Your task to perform on an android device: Empty the shopping cart on bestbuy. Add usb-a to usb-b to the cart on bestbuy Image 0: 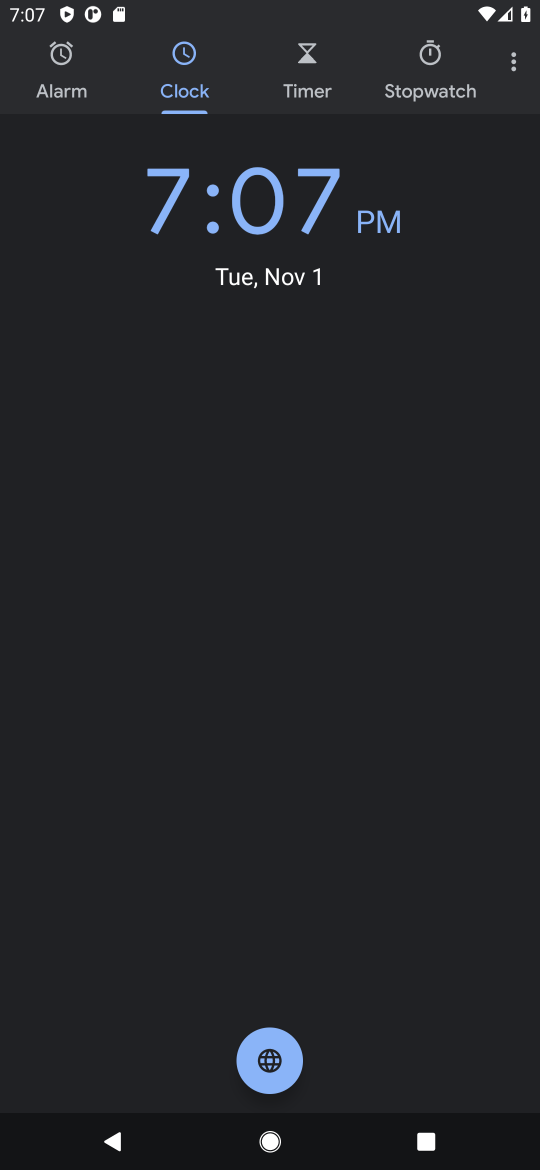
Step 0: press home button
Your task to perform on an android device: Empty the shopping cart on bestbuy. Add usb-a to usb-b to the cart on bestbuy Image 1: 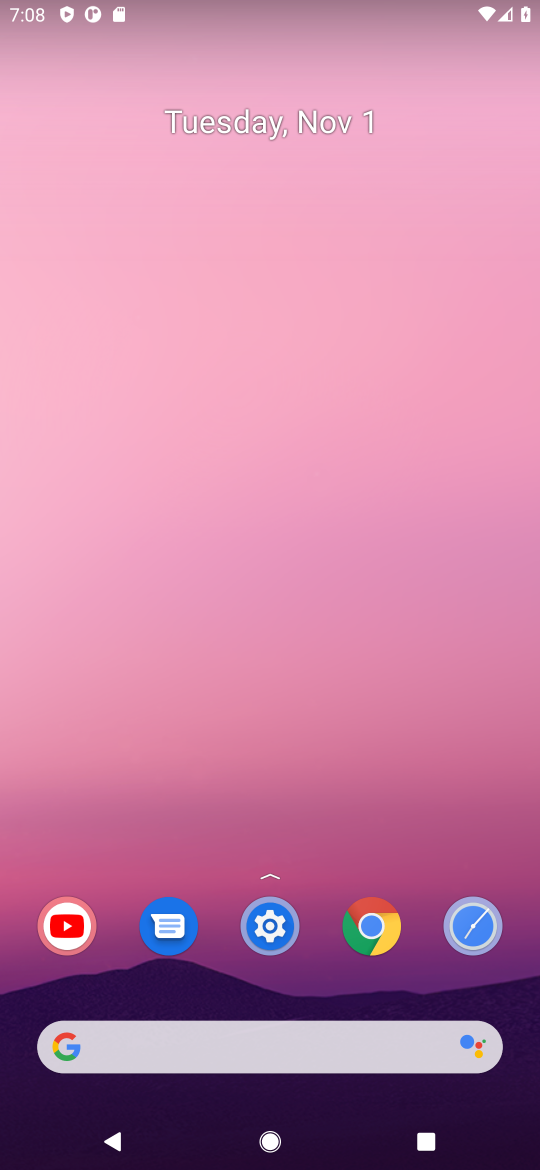
Step 1: click (372, 934)
Your task to perform on an android device: Empty the shopping cart on bestbuy. Add usb-a to usb-b to the cart on bestbuy Image 2: 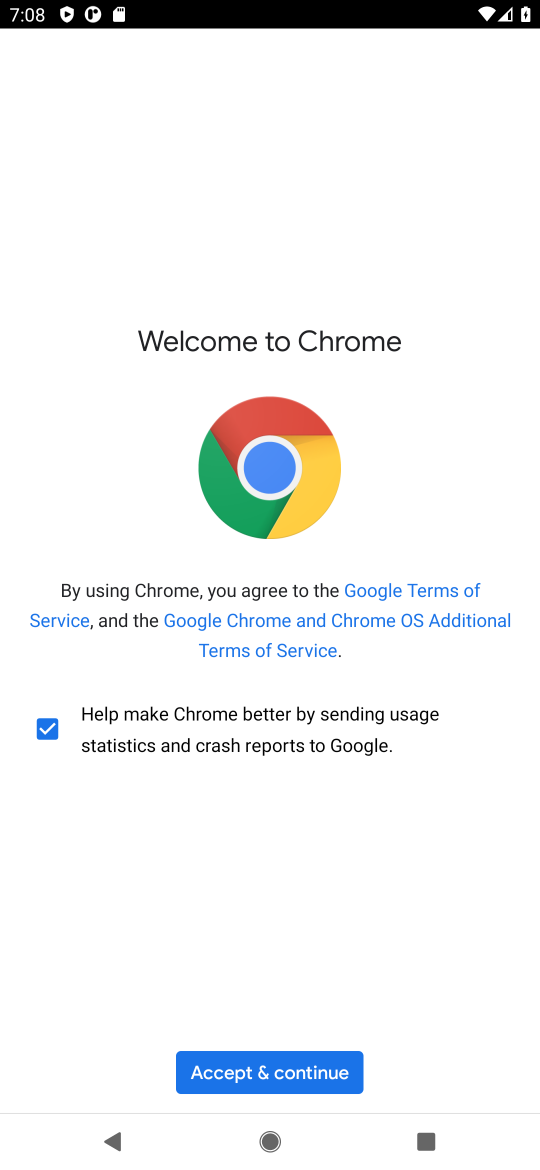
Step 2: click (262, 1089)
Your task to perform on an android device: Empty the shopping cart on bestbuy. Add usb-a to usb-b to the cart on bestbuy Image 3: 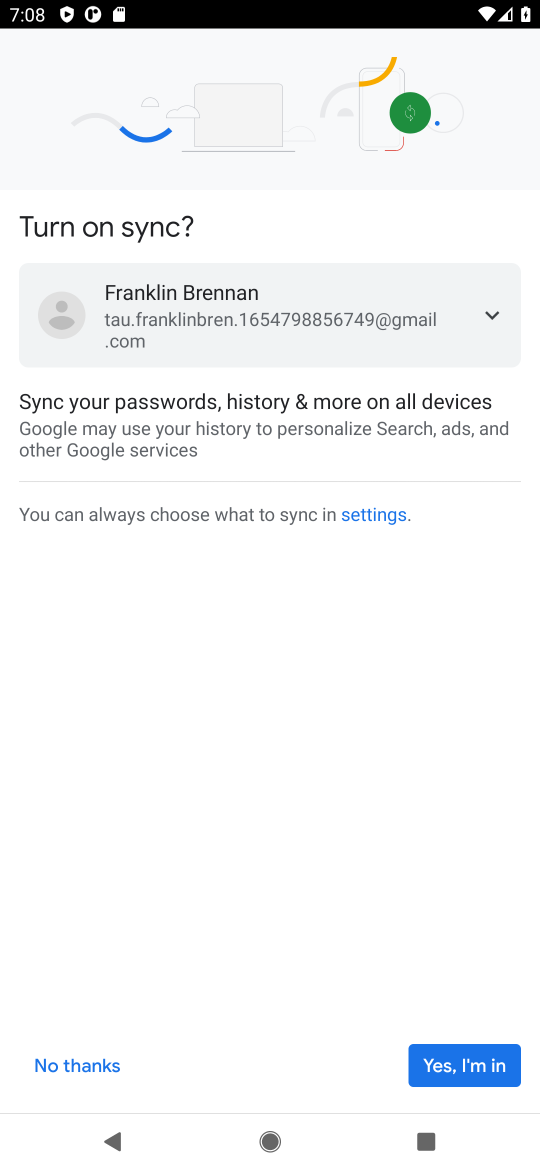
Step 3: click (448, 1071)
Your task to perform on an android device: Empty the shopping cart on bestbuy. Add usb-a to usb-b to the cart on bestbuy Image 4: 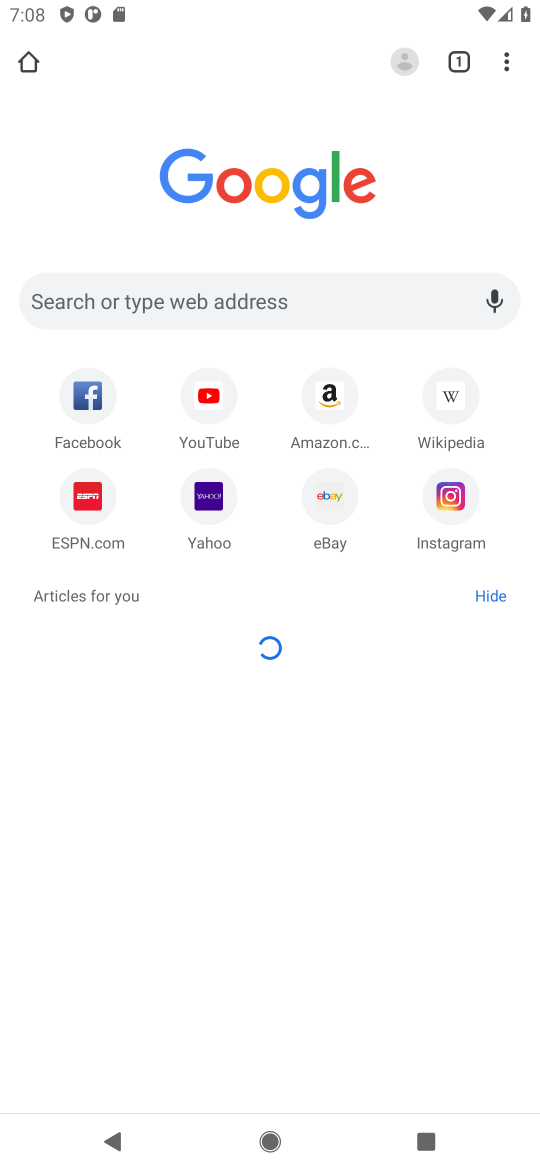
Step 4: click (265, 293)
Your task to perform on an android device: Empty the shopping cart on bestbuy. Add usb-a to usb-b to the cart on bestbuy Image 5: 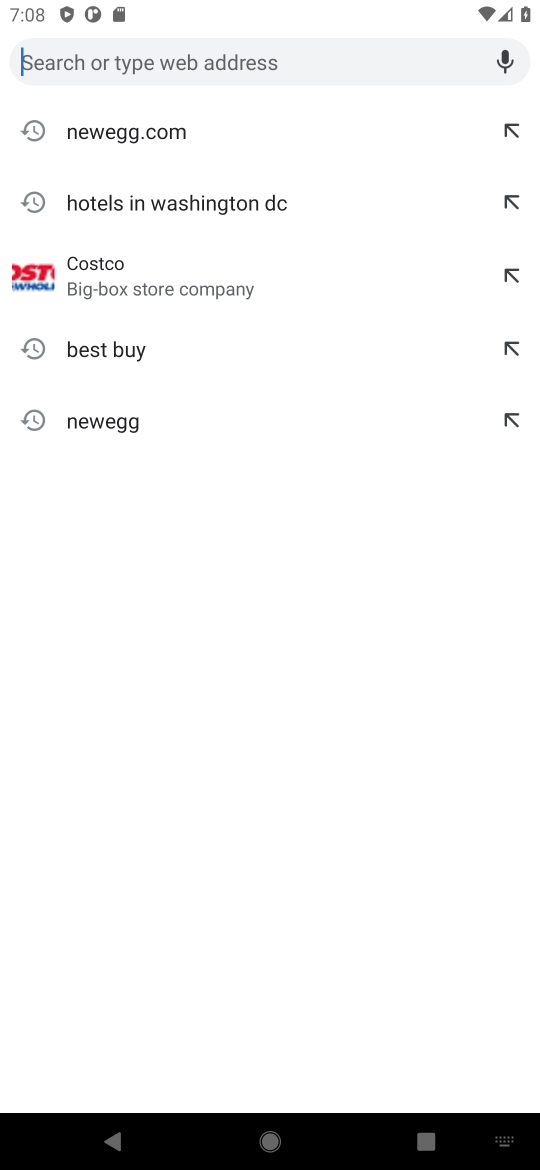
Step 5: type "bestbuy"
Your task to perform on an android device: Empty the shopping cart on bestbuy. Add usb-a to usb-b to the cart on bestbuy Image 6: 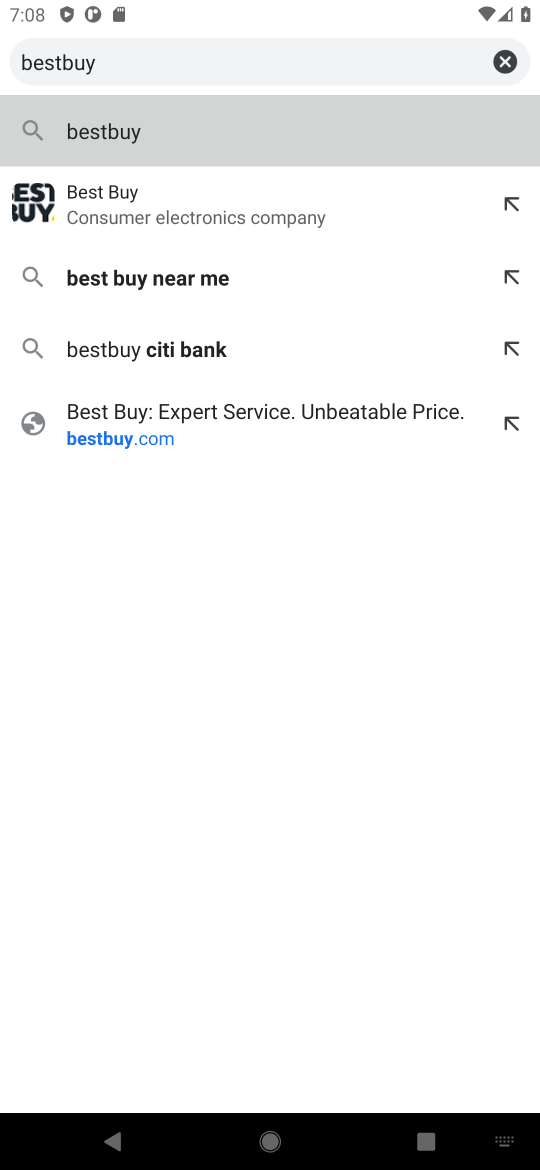
Step 6: type ""
Your task to perform on an android device: Empty the shopping cart on bestbuy. Add usb-a to usb-b to the cart on bestbuy Image 7: 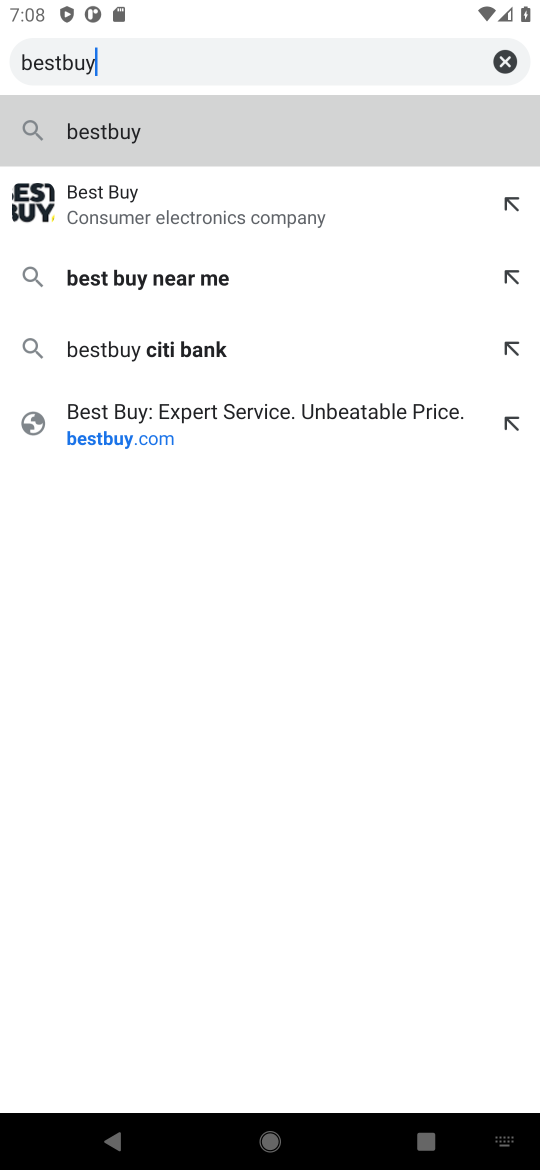
Step 7: click (97, 214)
Your task to perform on an android device: Empty the shopping cart on bestbuy. Add usb-a to usb-b to the cart on bestbuy Image 8: 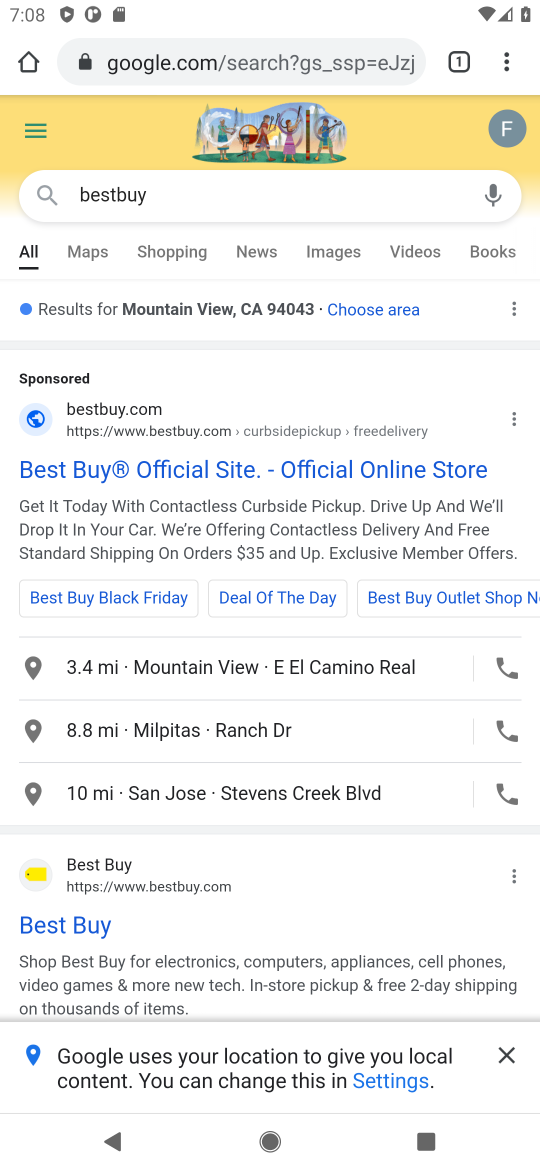
Step 8: click (508, 1059)
Your task to perform on an android device: Empty the shopping cart on bestbuy. Add usb-a to usb-b to the cart on bestbuy Image 9: 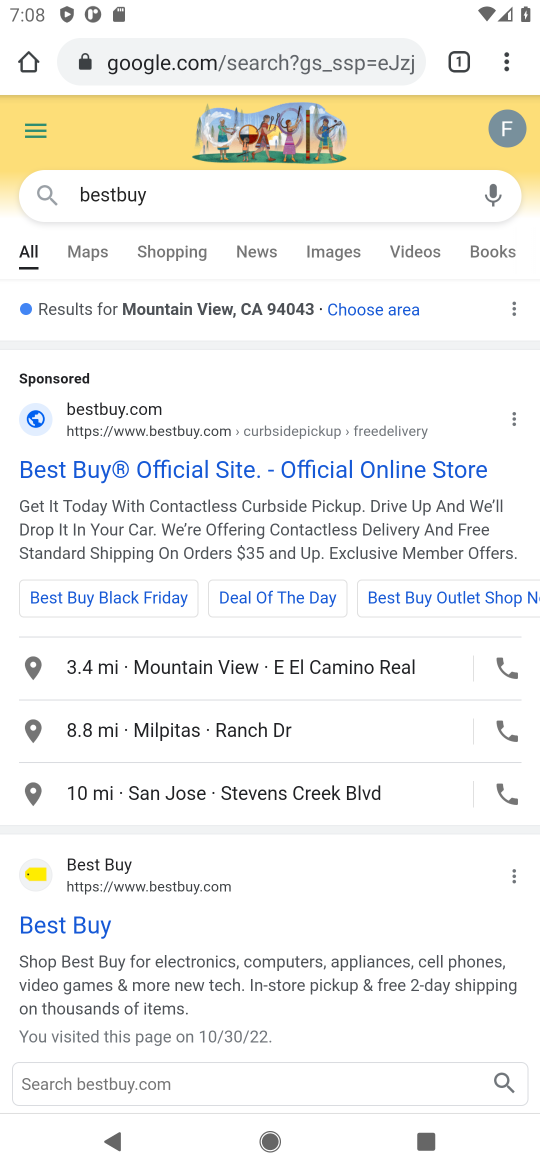
Step 9: click (58, 924)
Your task to perform on an android device: Empty the shopping cart on bestbuy. Add usb-a to usb-b to the cart on bestbuy Image 10: 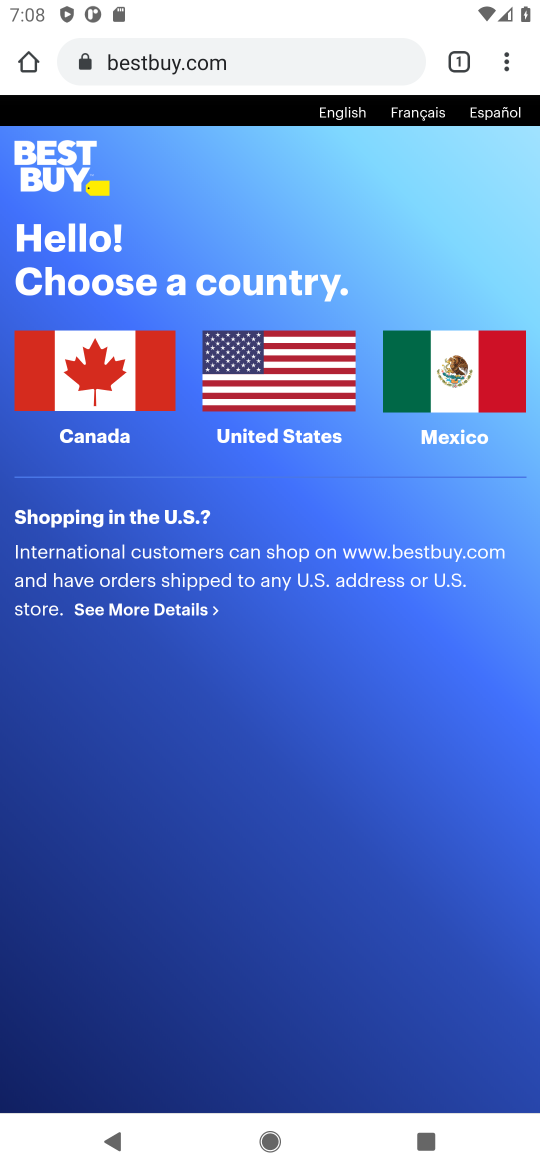
Step 10: click (280, 390)
Your task to perform on an android device: Empty the shopping cart on bestbuy. Add usb-a to usb-b to the cart on bestbuy Image 11: 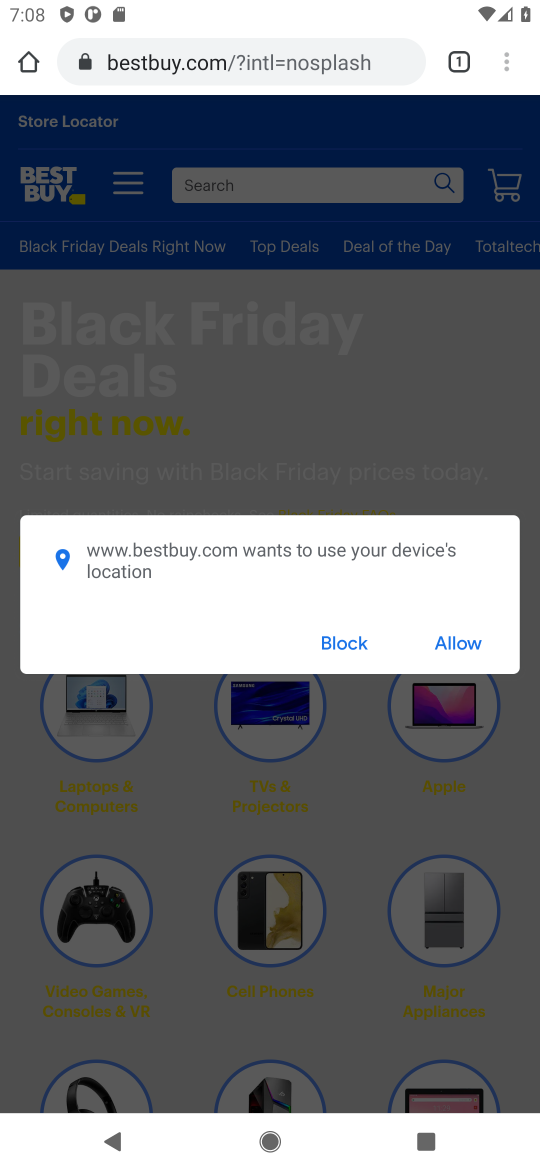
Step 11: click (449, 643)
Your task to perform on an android device: Empty the shopping cart on bestbuy. Add usb-a to usb-b to the cart on bestbuy Image 12: 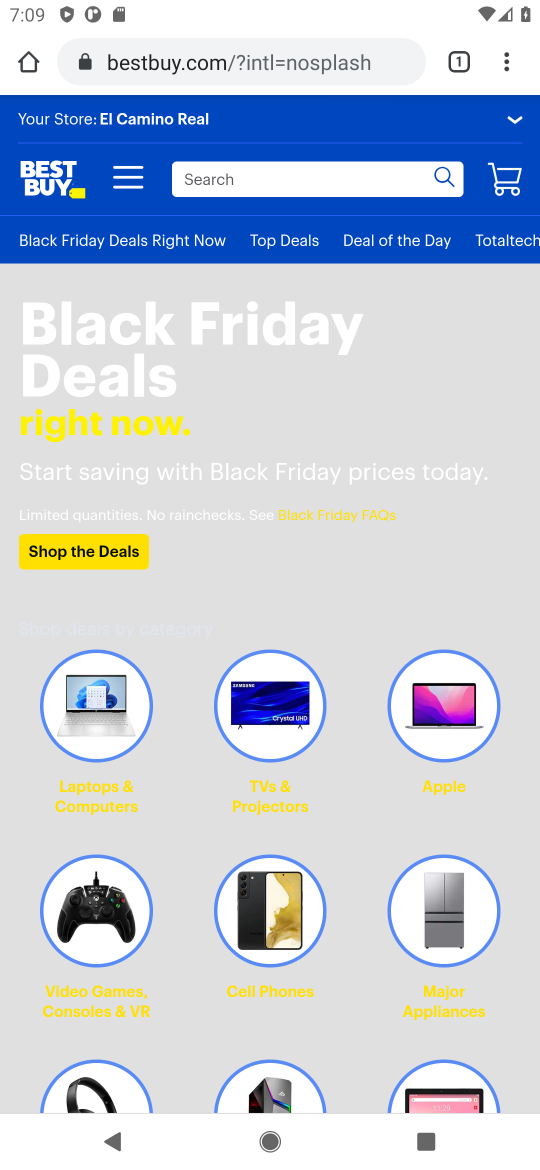
Step 12: click (511, 175)
Your task to perform on an android device: Empty the shopping cart on bestbuy. Add usb-a to usb-b to the cart on bestbuy Image 13: 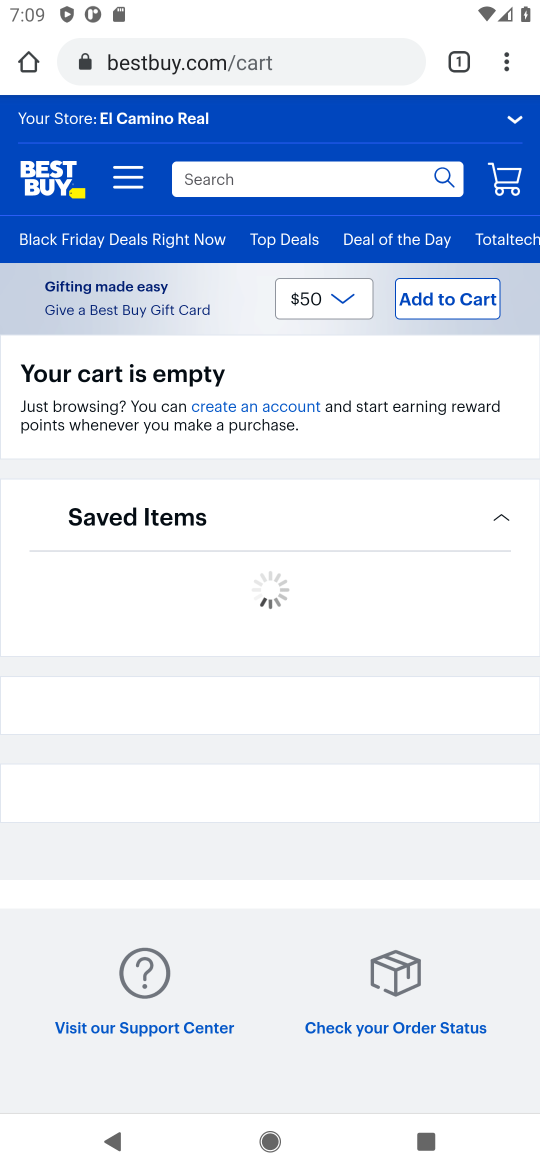
Step 13: click (231, 174)
Your task to perform on an android device: Empty the shopping cart on bestbuy. Add usb-a to usb-b to the cart on bestbuy Image 14: 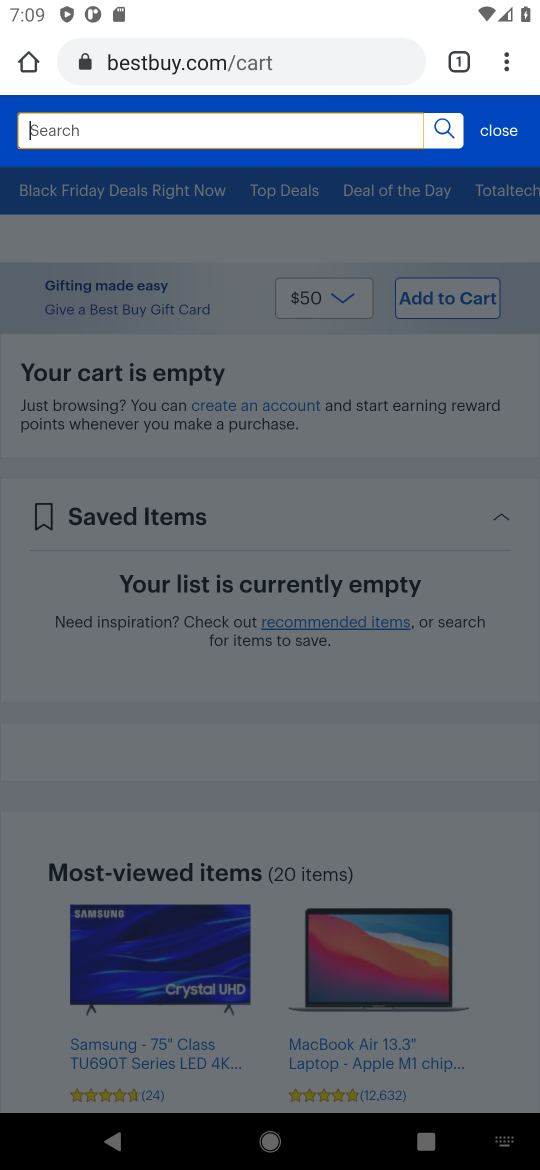
Step 14: type "usb a - to usb b"
Your task to perform on an android device: Empty the shopping cart on bestbuy. Add usb-a to usb-b to the cart on bestbuy Image 15: 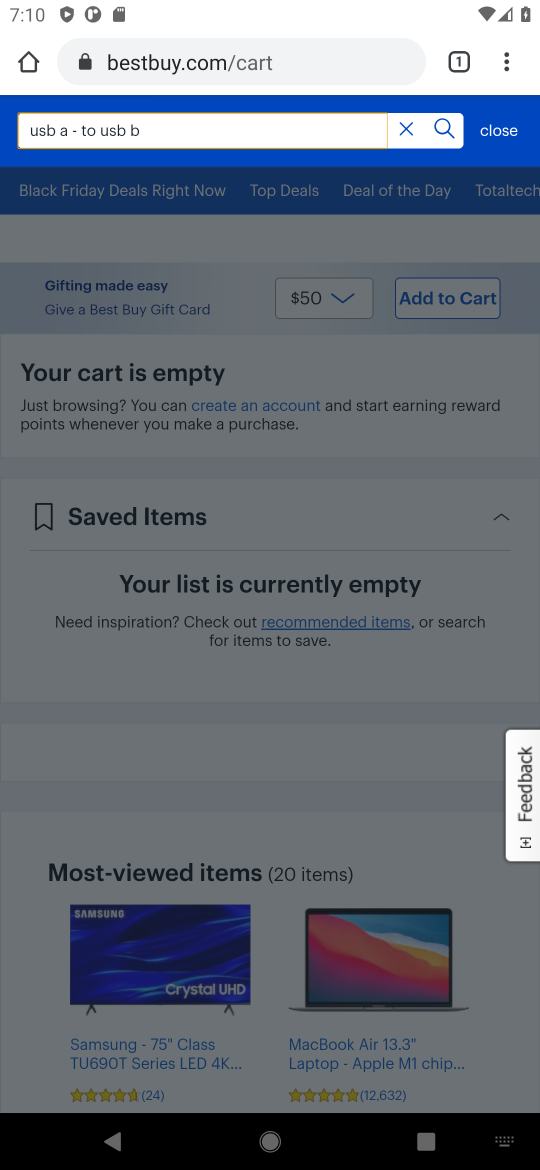
Step 15: click (444, 121)
Your task to perform on an android device: Empty the shopping cart on bestbuy. Add usb-a to usb-b to the cart on bestbuy Image 16: 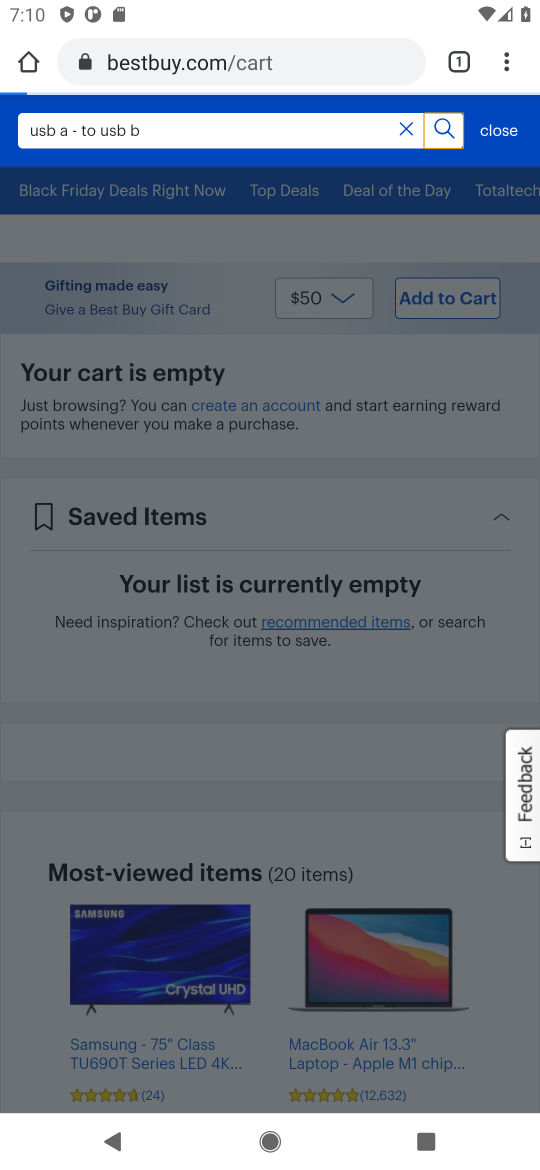
Step 16: press back button
Your task to perform on an android device: Empty the shopping cart on bestbuy. Add usb-a to usb-b to the cart on bestbuy Image 17: 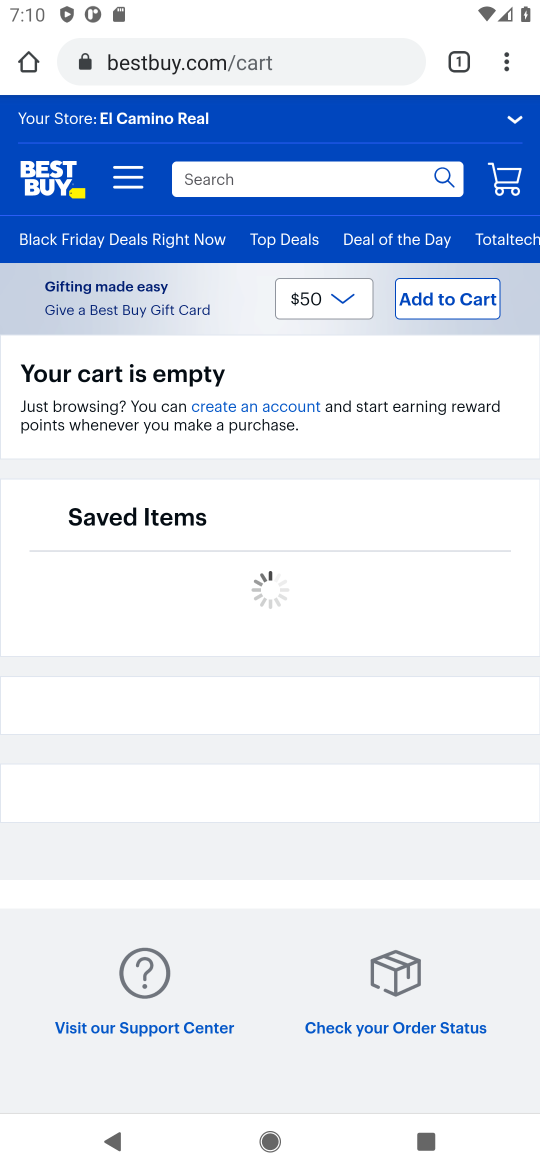
Step 17: click (262, 244)
Your task to perform on an android device: Empty the shopping cart on bestbuy. Add usb-a to usb-b to the cart on bestbuy Image 18: 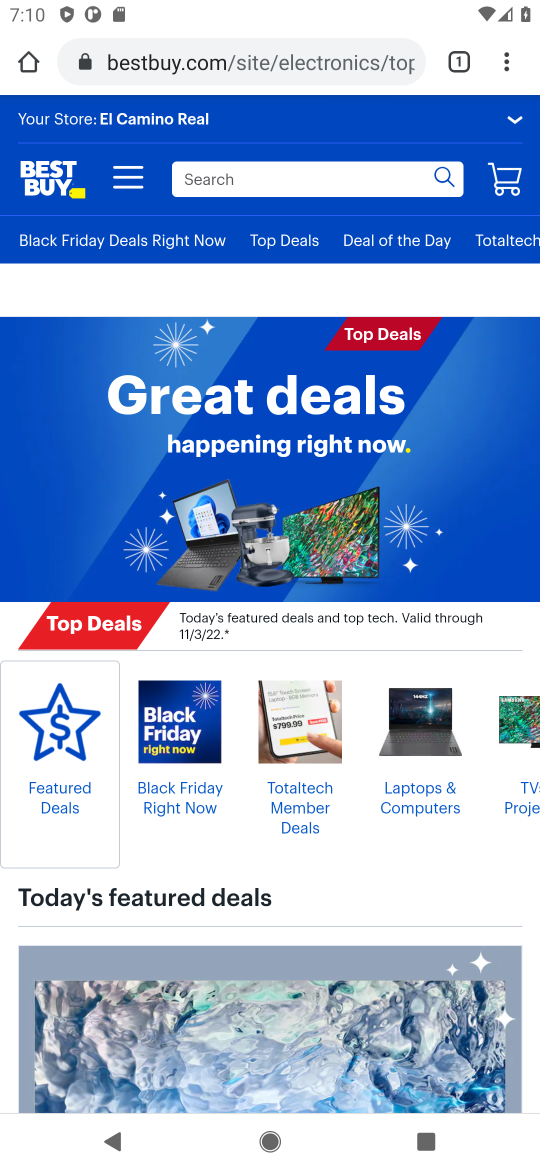
Step 18: click (148, 225)
Your task to perform on an android device: Empty the shopping cart on bestbuy. Add usb-a to usb-b to the cart on bestbuy Image 19: 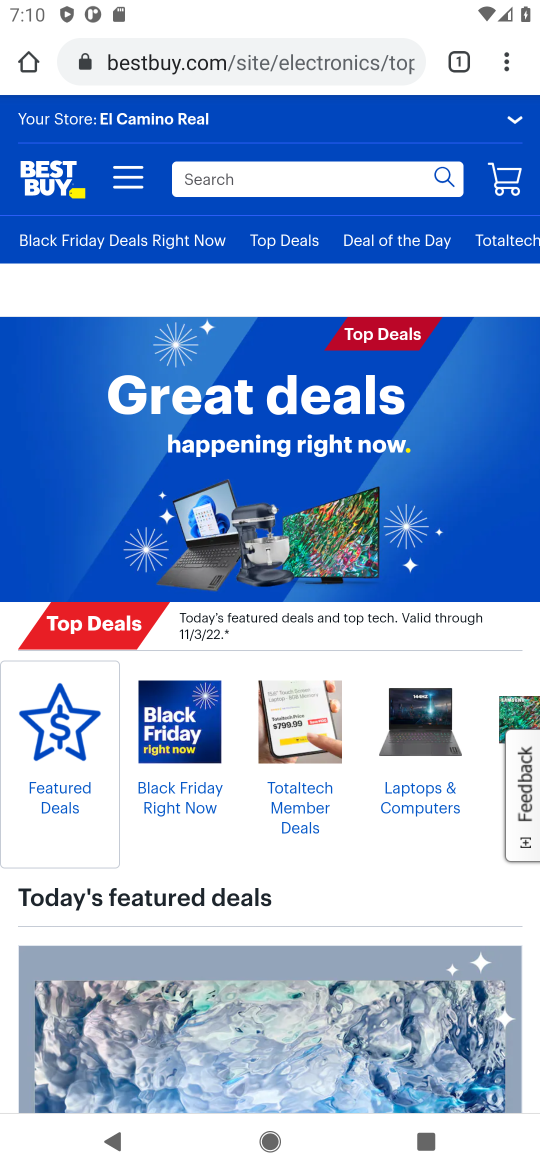
Step 19: click (336, 174)
Your task to perform on an android device: Empty the shopping cart on bestbuy. Add usb-a to usb-b to the cart on bestbuy Image 20: 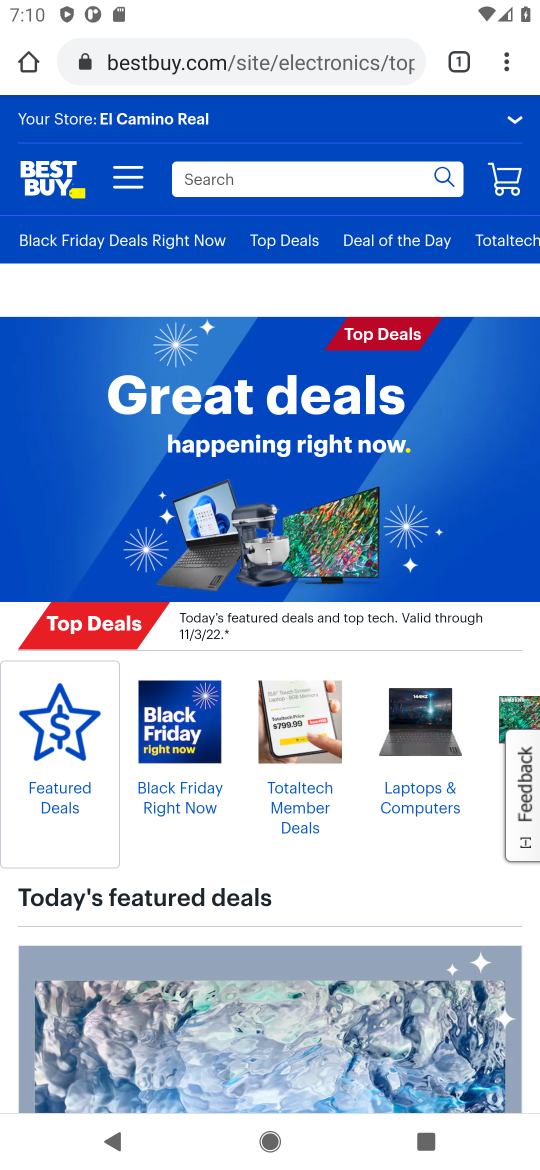
Step 20: click (288, 186)
Your task to perform on an android device: Empty the shopping cart on bestbuy. Add usb-a to usb-b to the cart on bestbuy Image 21: 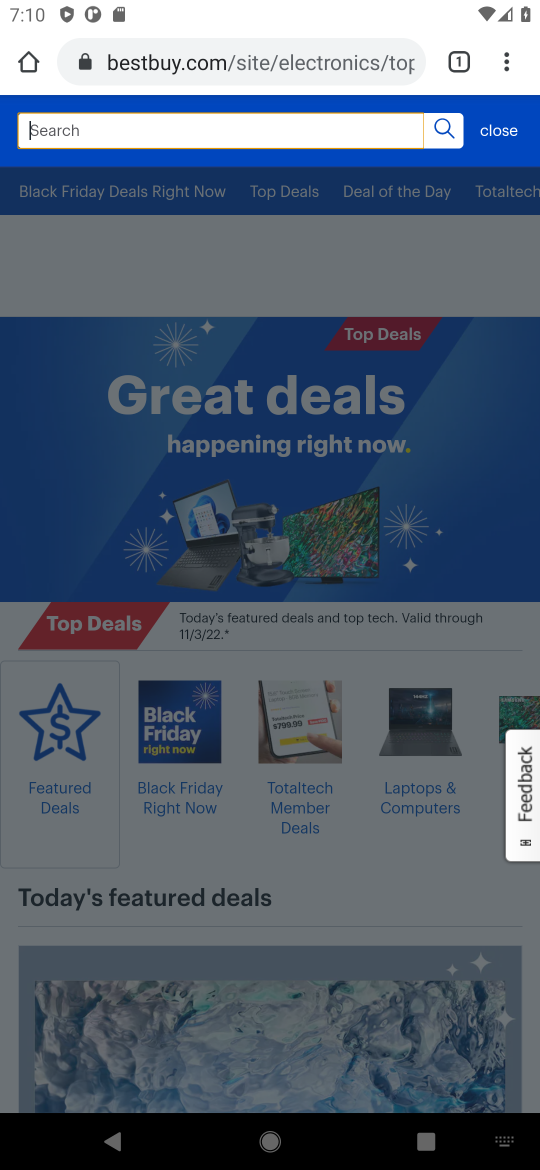
Step 21: type "usb a - us-b"
Your task to perform on an android device: Empty the shopping cart on bestbuy. Add usb-a to usb-b to the cart on bestbuy Image 22: 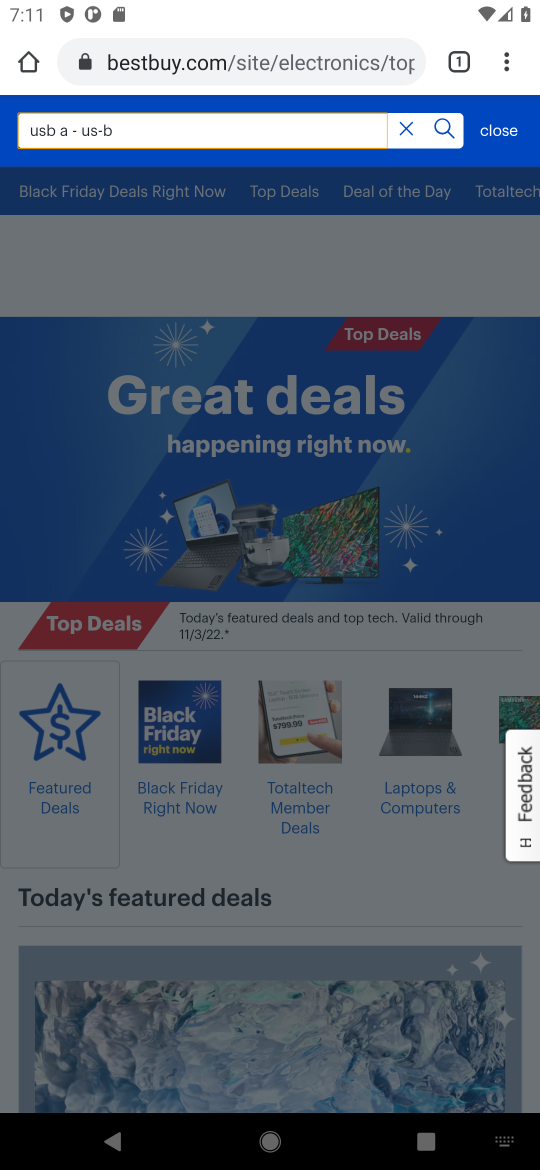
Step 22: click (451, 135)
Your task to perform on an android device: Empty the shopping cart on bestbuy. Add usb-a to usb-b to the cart on bestbuy Image 23: 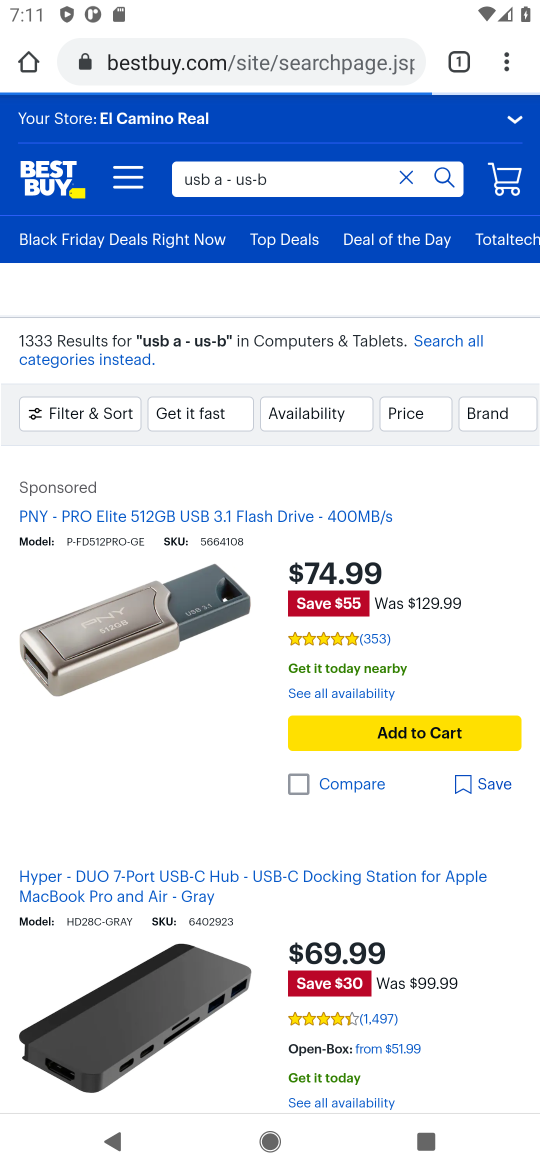
Step 23: drag from (224, 905) to (179, 587)
Your task to perform on an android device: Empty the shopping cart on bestbuy. Add usb-a to usb-b to the cart on bestbuy Image 24: 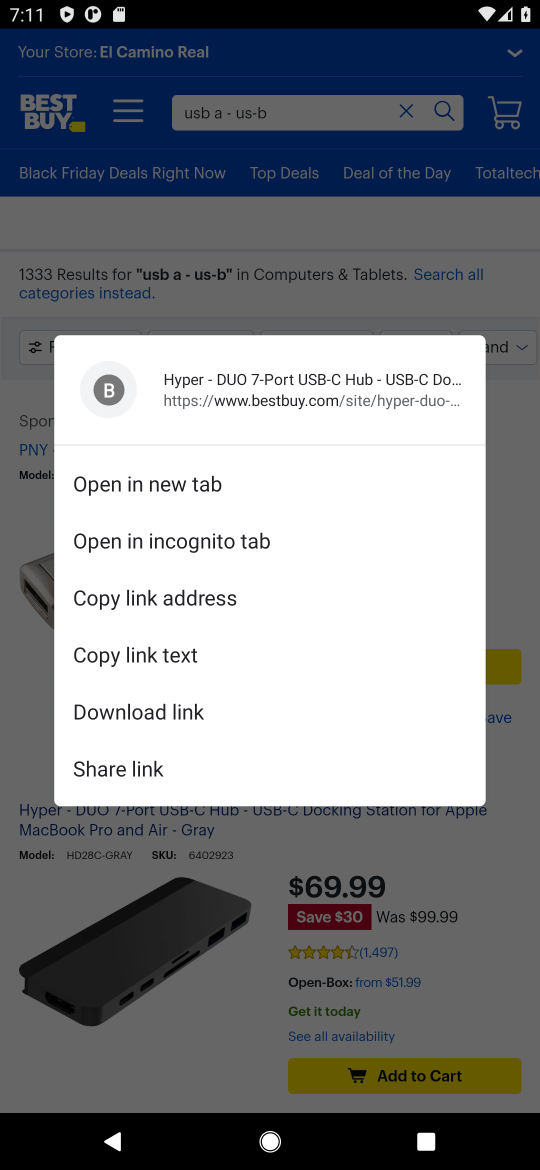
Step 24: click (534, 483)
Your task to perform on an android device: Empty the shopping cart on bestbuy. Add usb-a to usb-b to the cart on bestbuy Image 25: 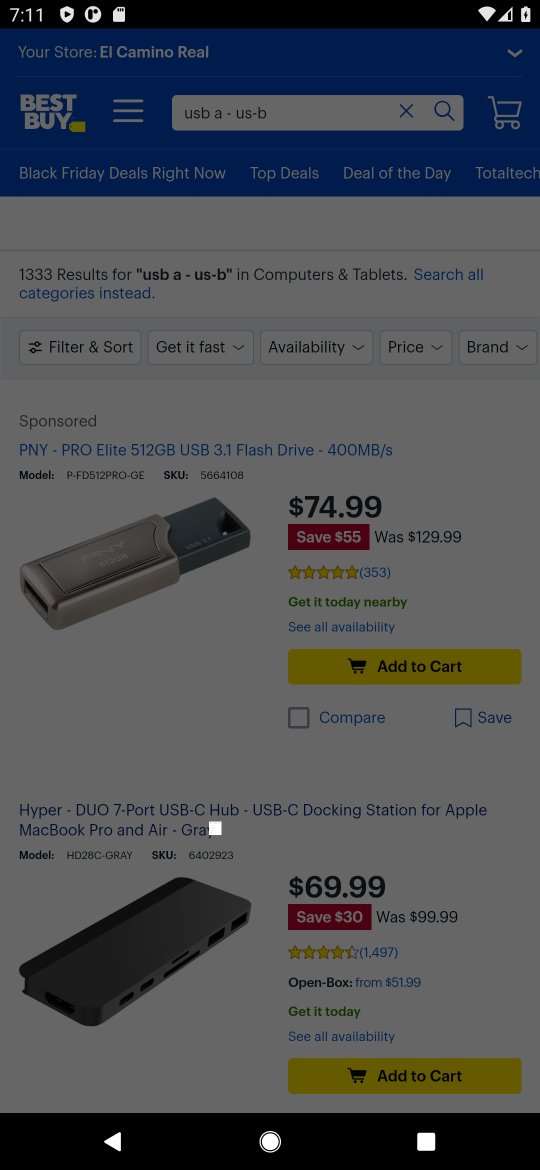
Step 25: click (534, 488)
Your task to perform on an android device: Empty the shopping cart on bestbuy. Add usb-a to usb-b to the cart on bestbuy Image 26: 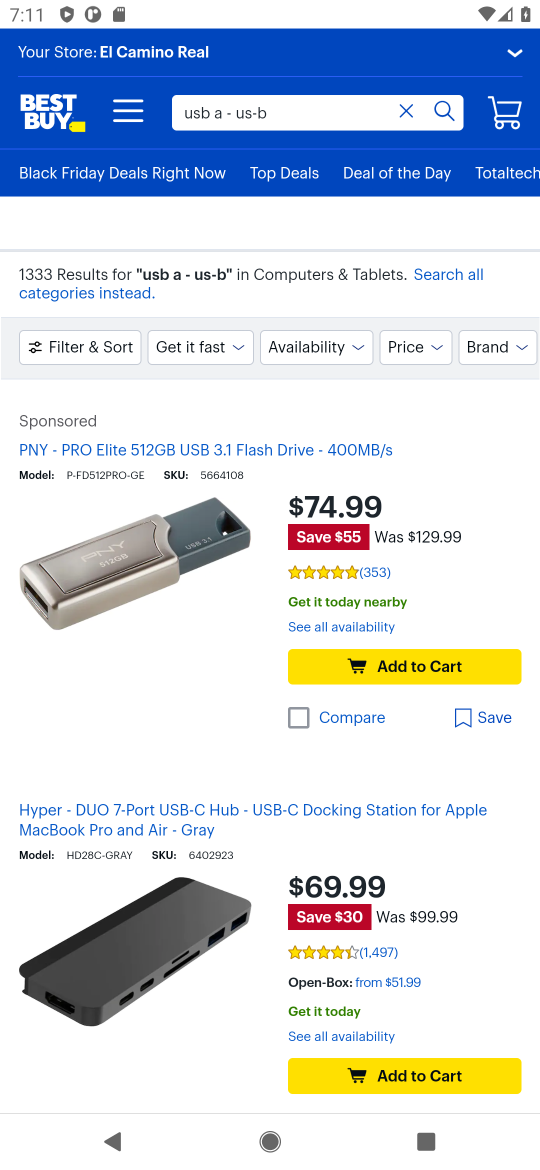
Step 26: drag from (479, 950) to (458, 297)
Your task to perform on an android device: Empty the shopping cart on bestbuy. Add usb-a to usb-b to the cart on bestbuy Image 27: 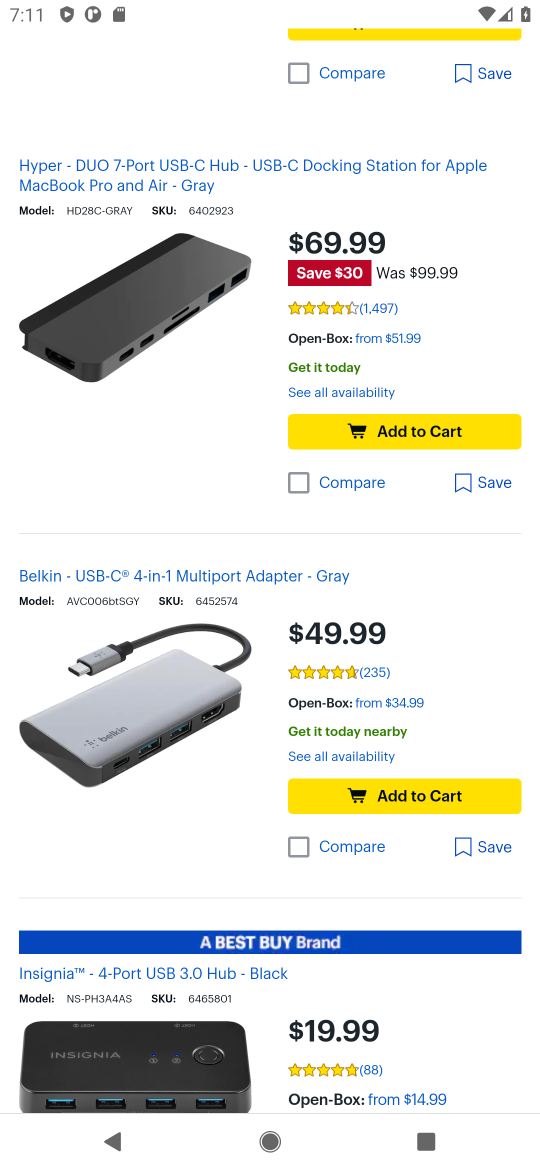
Step 27: drag from (157, 856) to (153, 295)
Your task to perform on an android device: Empty the shopping cart on bestbuy. Add usb-a to usb-b to the cart on bestbuy Image 28: 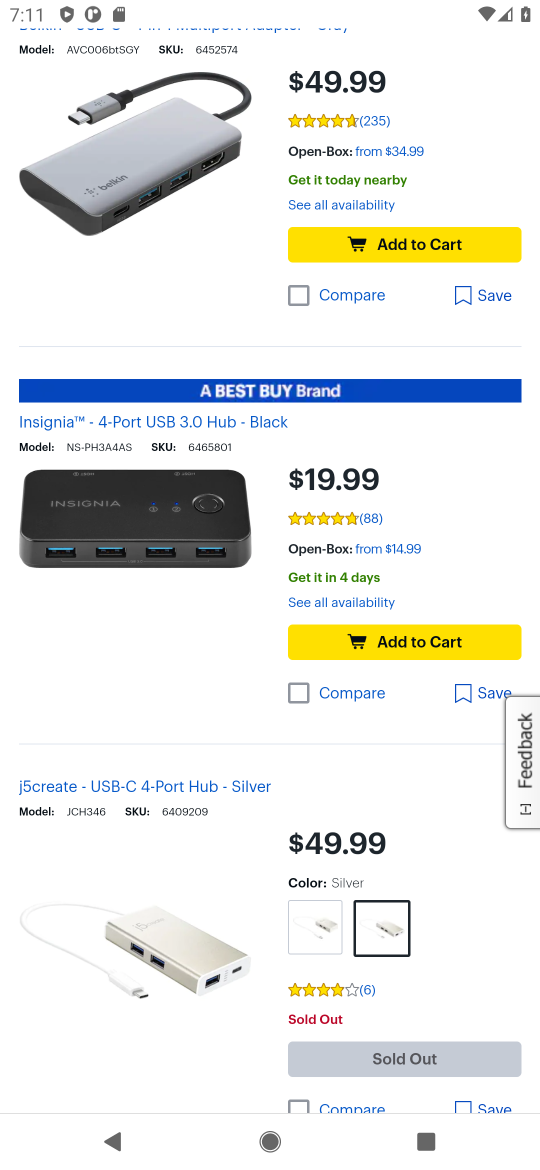
Step 28: drag from (113, 677) to (86, 315)
Your task to perform on an android device: Empty the shopping cart on bestbuy. Add usb-a to usb-b to the cart on bestbuy Image 29: 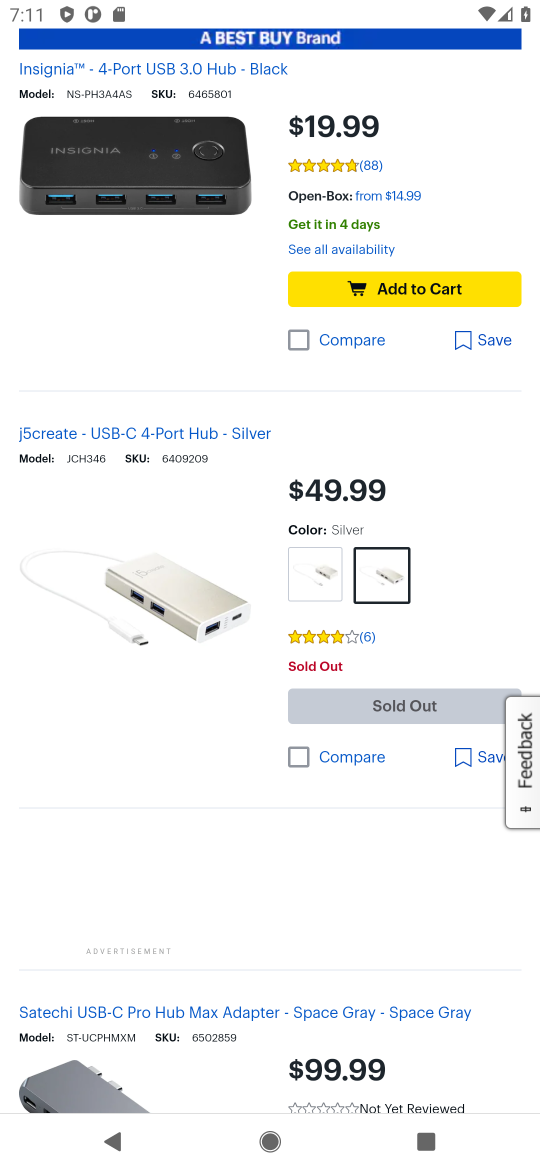
Step 29: drag from (120, 310) to (108, 917)
Your task to perform on an android device: Empty the shopping cart on bestbuy. Add usb-a to usb-b to the cart on bestbuy Image 30: 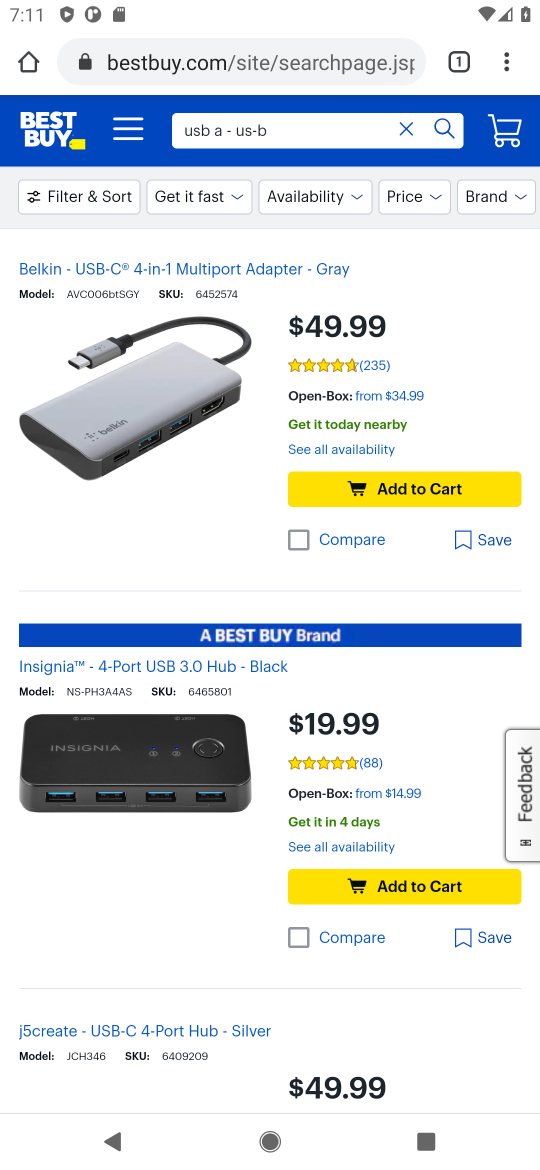
Step 30: drag from (93, 544) to (47, 1151)
Your task to perform on an android device: Empty the shopping cart on bestbuy. Add usb-a to usb-b to the cart on bestbuy Image 31: 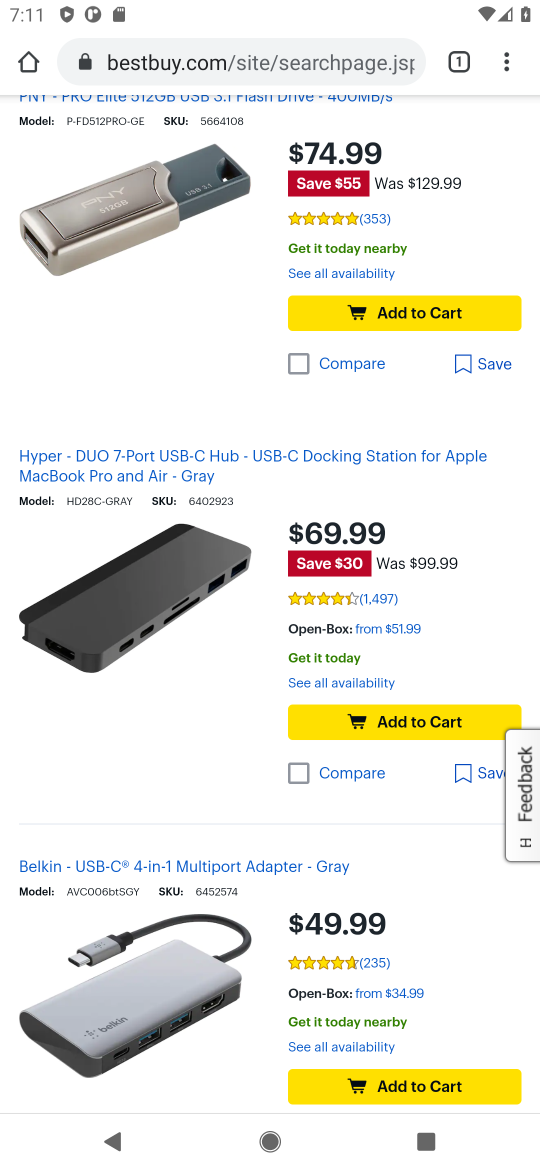
Step 31: drag from (130, 317) to (125, 1014)
Your task to perform on an android device: Empty the shopping cart on bestbuy. Add usb-a to usb-b to the cart on bestbuy Image 32: 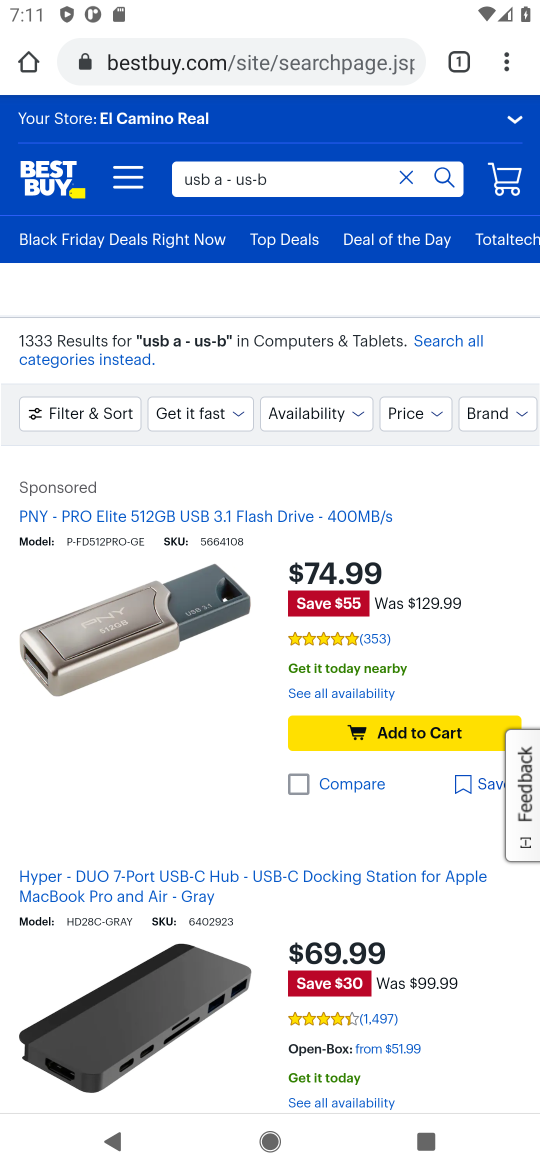
Step 32: drag from (47, 959) to (94, 707)
Your task to perform on an android device: Empty the shopping cart on bestbuy. Add usb-a to usb-b to the cart on bestbuy Image 33: 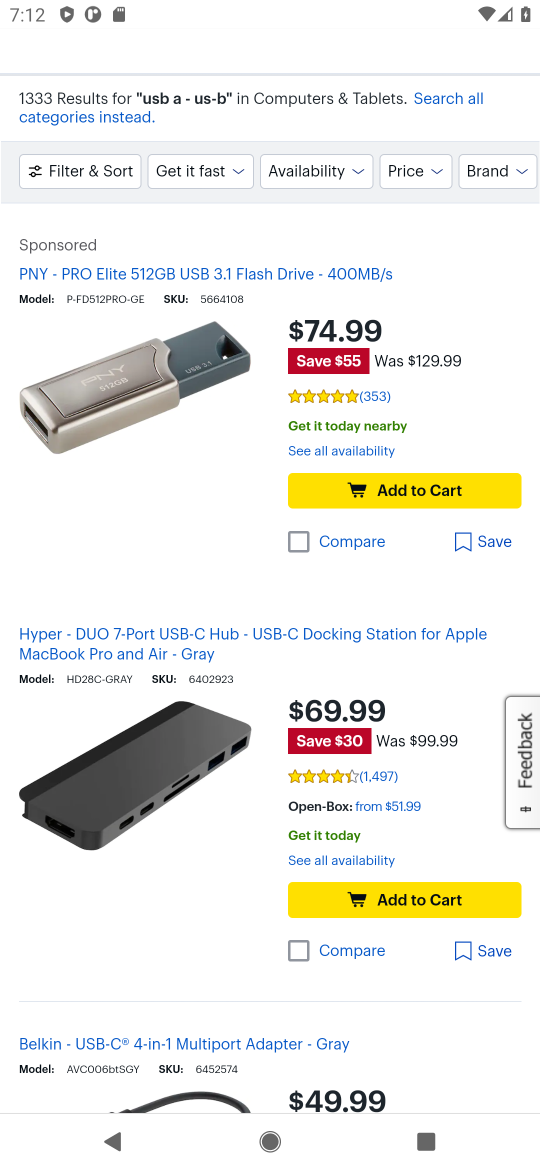
Step 33: click (416, 485)
Your task to perform on an android device: Empty the shopping cart on bestbuy. Add usb-a to usb-b to the cart on bestbuy Image 34: 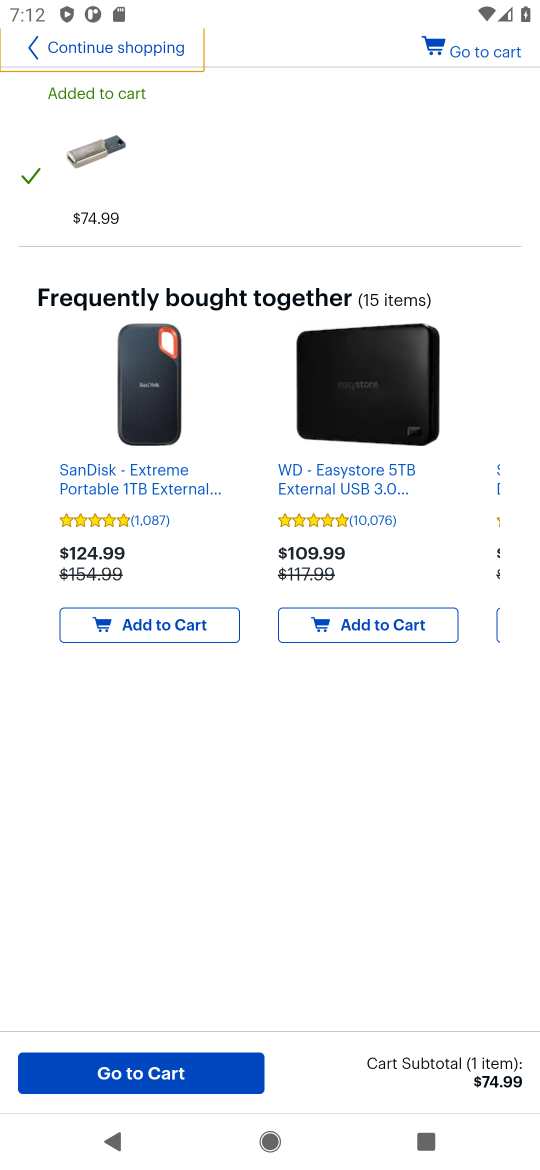
Step 34: task complete